Your task to perform on an android device: Turn off the flashlight Image 0: 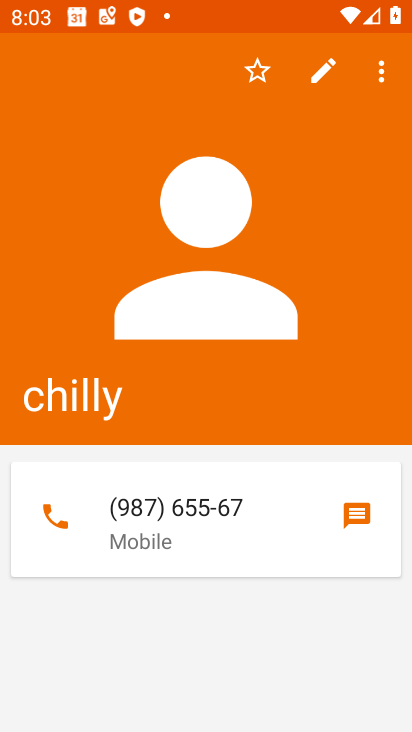
Step 0: press home button
Your task to perform on an android device: Turn off the flashlight Image 1: 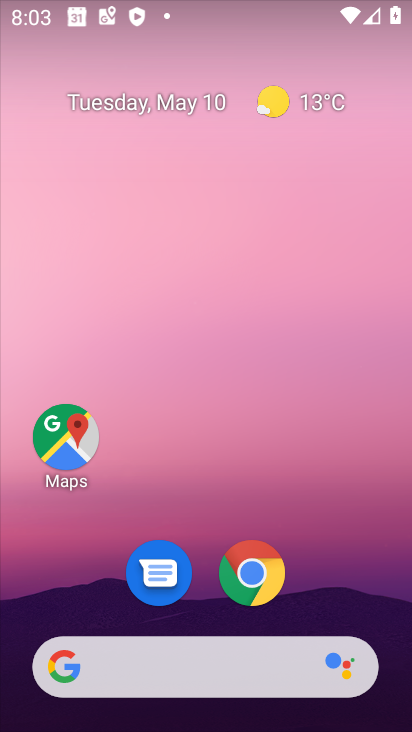
Step 1: task complete